Your task to perform on an android device: What's the weather today? Image 0: 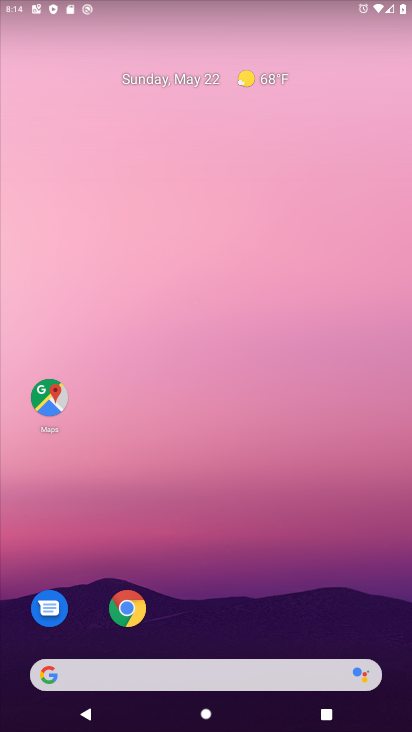
Step 0: click (242, 74)
Your task to perform on an android device: What's the weather today? Image 1: 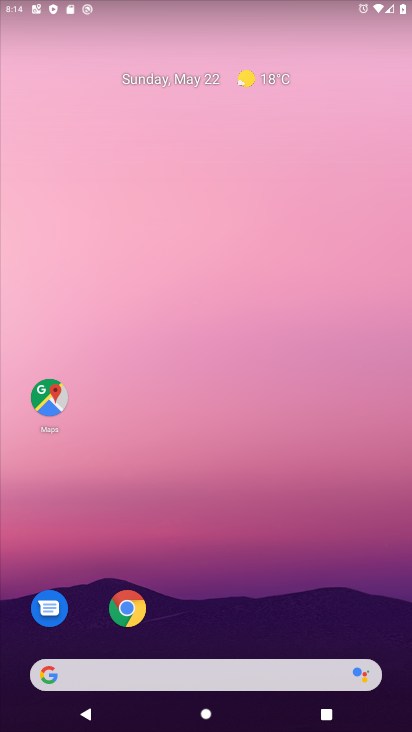
Step 1: click (251, 76)
Your task to perform on an android device: What's the weather today? Image 2: 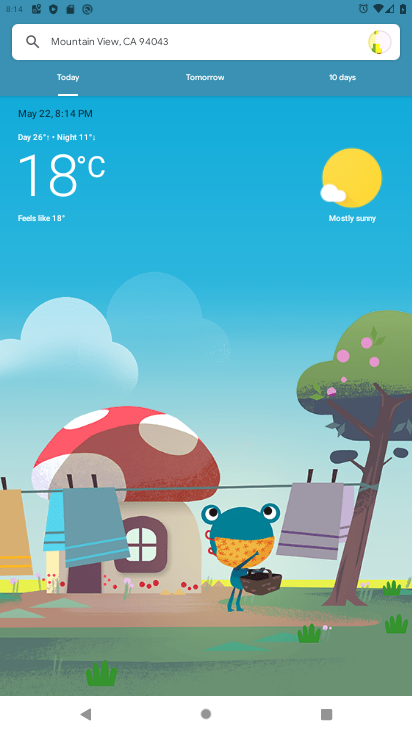
Step 2: task complete